Your task to perform on an android device: move a message to another label in the gmail app Image 0: 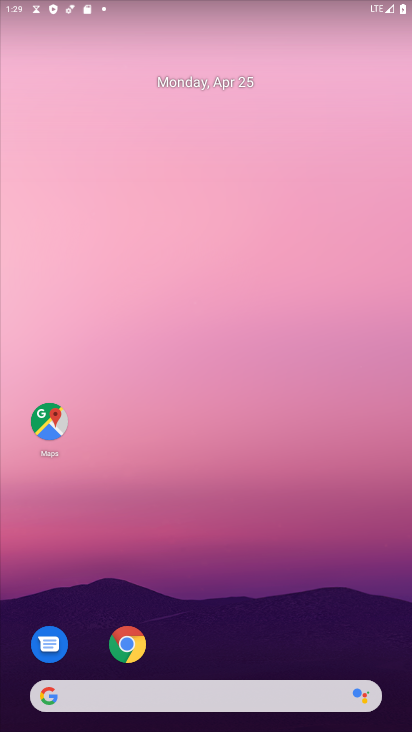
Step 0: drag from (370, 666) to (389, 3)
Your task to perform on an android device: move a message to another label in the gmail app Image 1: 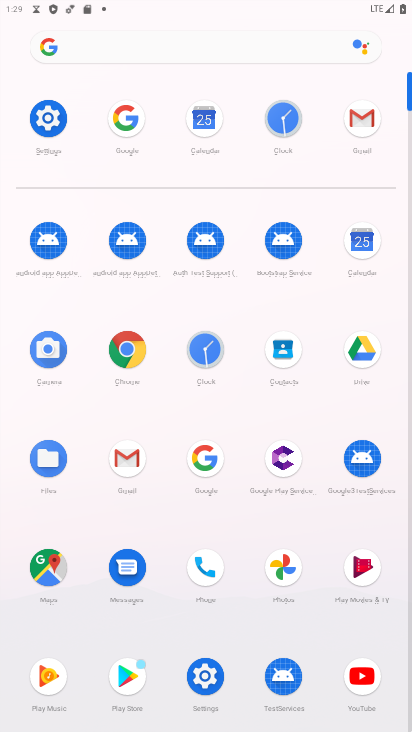
Step 1: click (364, 127)
Your task to perform on an android device: move a message to another label in the gmail app Image 2: 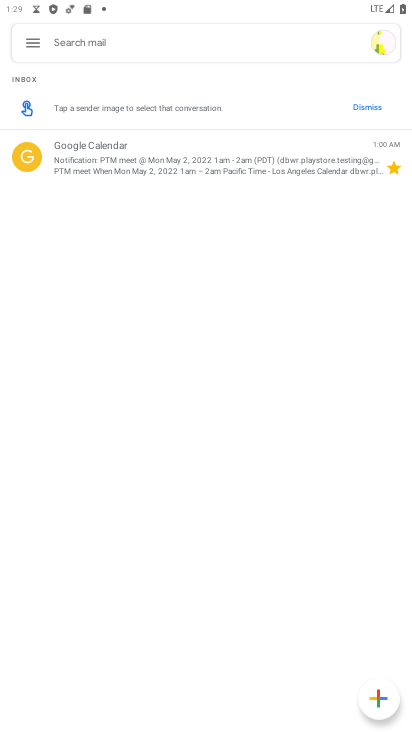
Step 2: click (31, 44)
Your task to perform on an android device: move a message to another label in the gmail app Image 3: 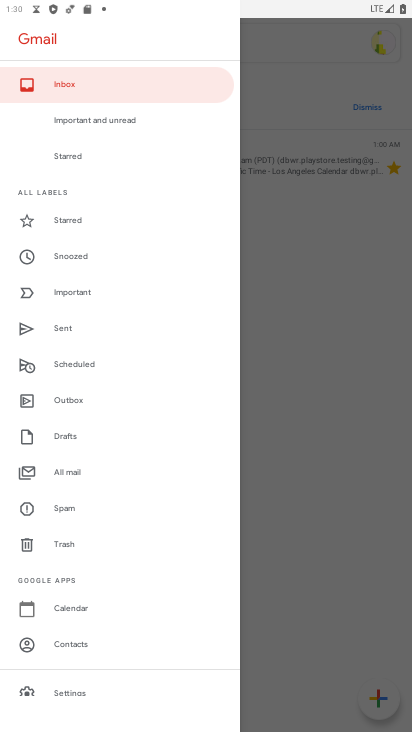
Step 3: click (60, 473)
Your task to perform on an android device: move a message to another label in the gmail app Image 4: 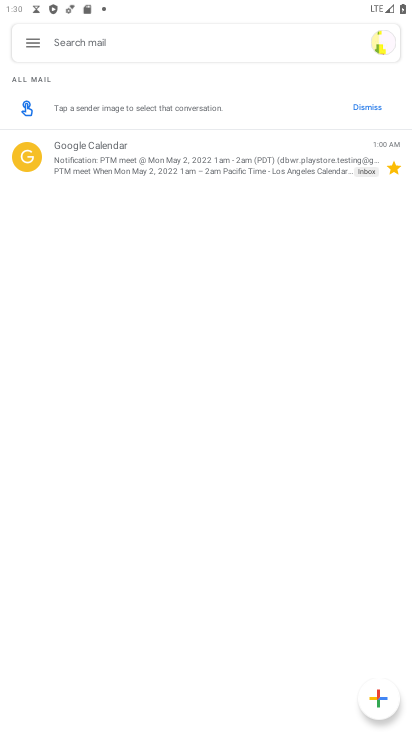
Step 4: click (225, 165)
Your task to perform on an android device: move a message to another label in the gmail app Image 5: 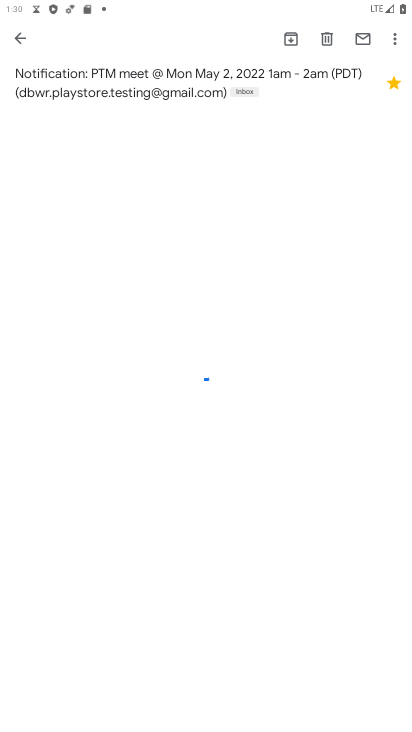
Step 5: click (394, 39)
Your task to perform on an android device: move a message to another label in the gmail app Image 6: 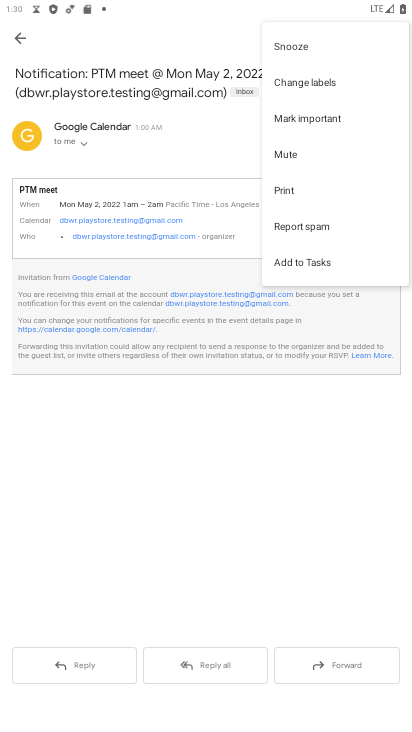
Step 6: click (301, 89)
Your task to perform on an android device: move a message to another label in the gmail app Image 7: 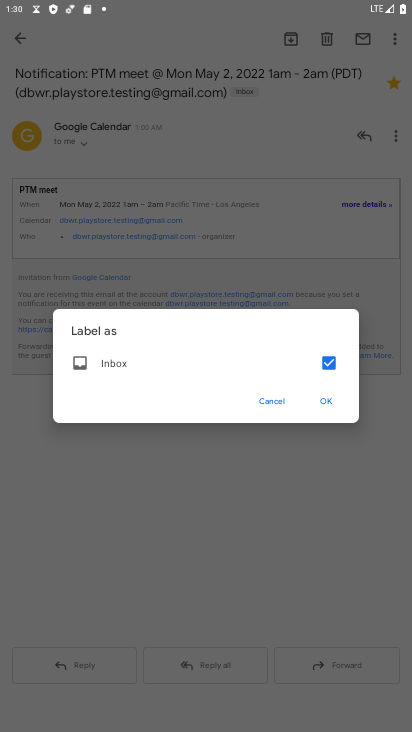
Step 7: click (326, 363)
Your task to perform on an android device: move a message to another label in the gmail app Image 8: 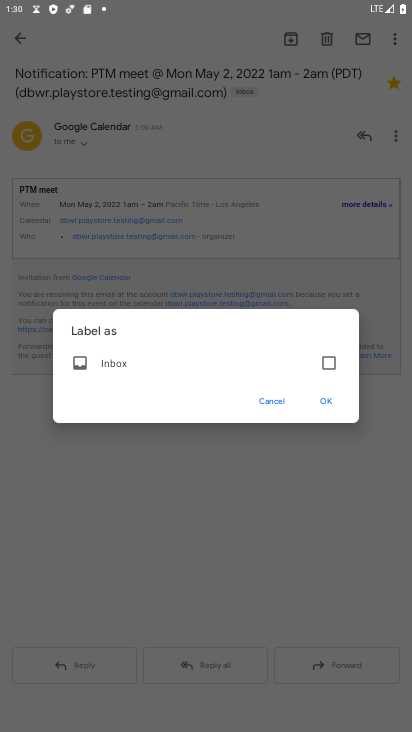
Step 8: click (325, 403)
Your task to perform on an android device: move a message to another label in the gmail app Image 9: 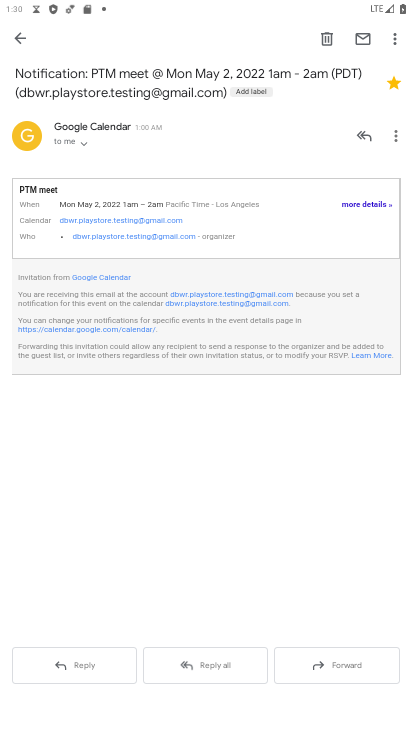
Step 9: task complete